Your task to perform on an android device: change the upload size in google photos Image 0: 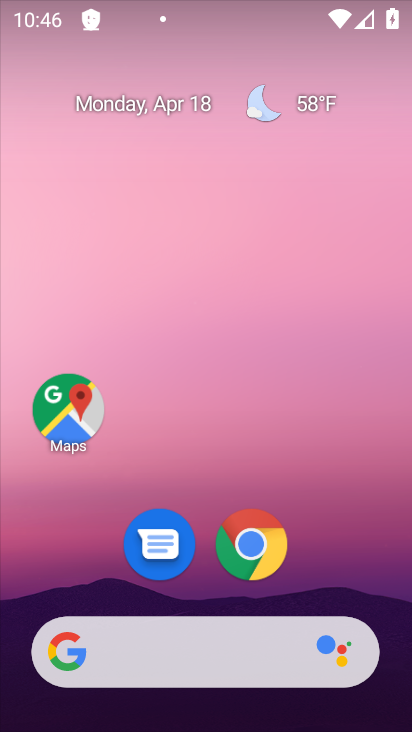
Step 0: drag from (210, 568) to (235, 30)
Your task to perform on an android device: change the upload size in google photos Image 1: 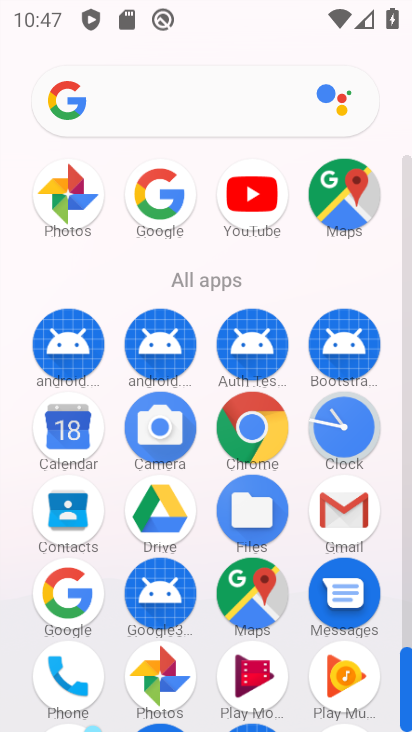
Step 1: click (71, 191)
Your task to perform on an android device: change the upload size in google photos Image 2: 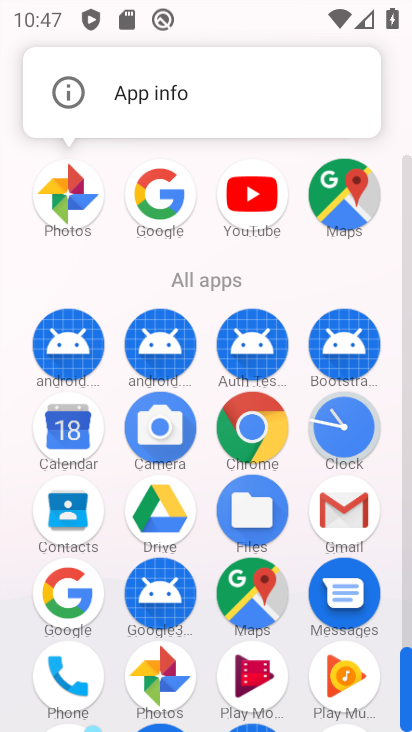
Step 2: click (71, 191)
Your task to perform on an android device: change the upload size in google photos Image 3: 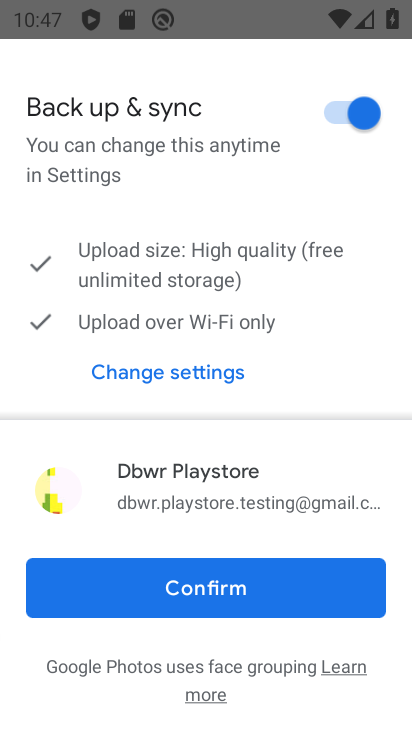
Step 3: click (204, 584)
Your task to perform on an android device: change the upload size in google photos Image 4: 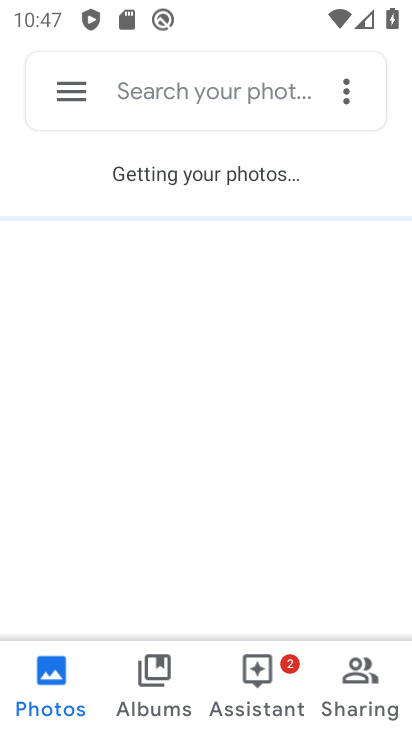
Step 4: click (76, 103)
Your task to perform on an android device: change the upload size in google photos Image 5: 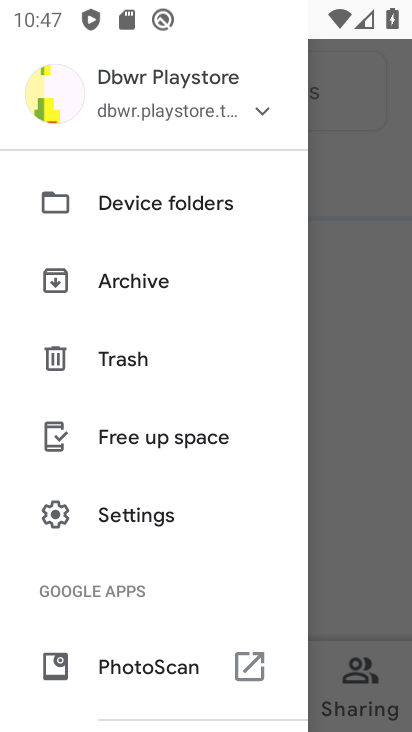
Step 5: click (137, 520)
Your task to perform on an android device: change the upload size in google photos Image 6: 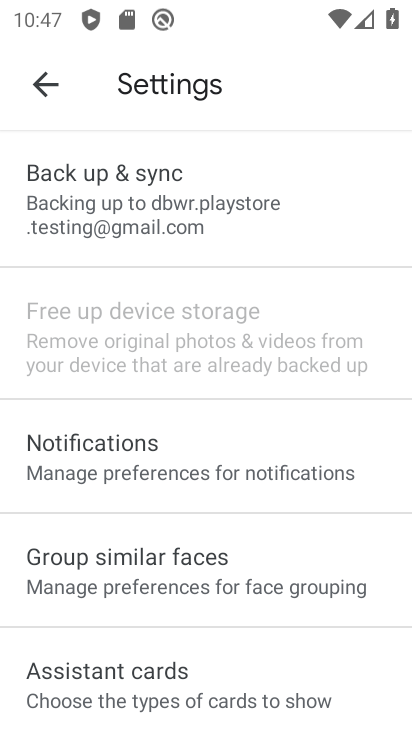
Step 6: click (87, 195)
Your task to perform on an android device: change the upload size in google photos Image 7: 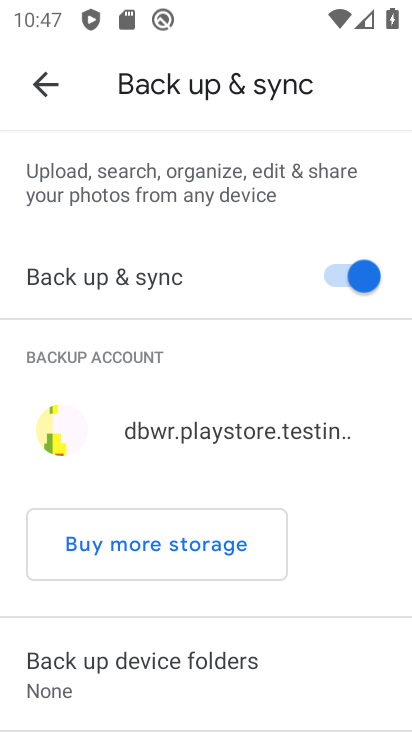
Step 7: drag from (124, 643) to (156, 392)
Your task to perform on an android device: change the upload size in google photos Image 8: 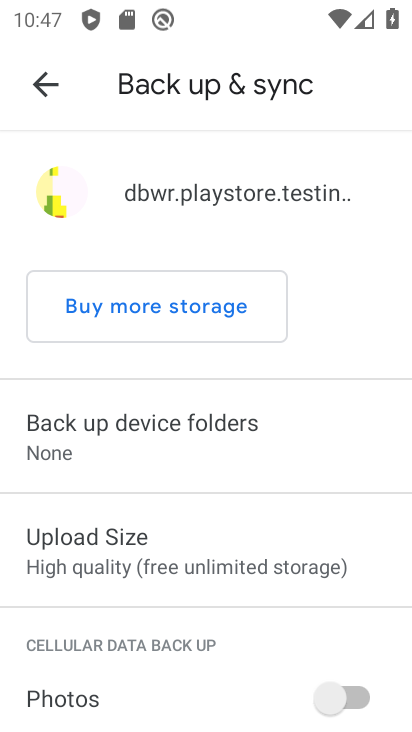
Step 8: click (124, 554)
Your task to perform on an android device: change the upload size in google photos Image 9: 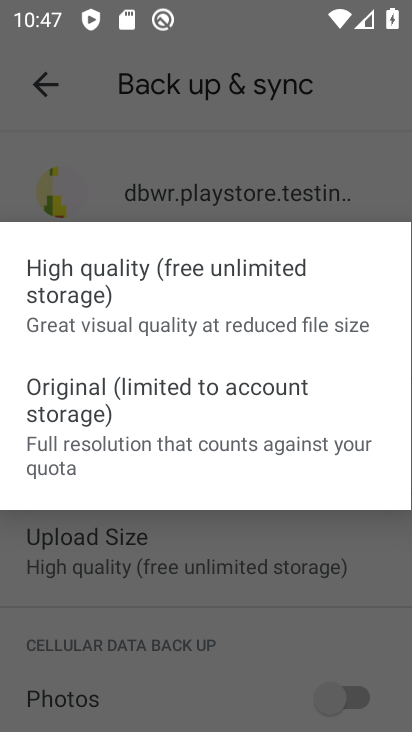
Step 9: click (145, 388)
Your task to perform on an android device: change the upload size in google photos Image 10: 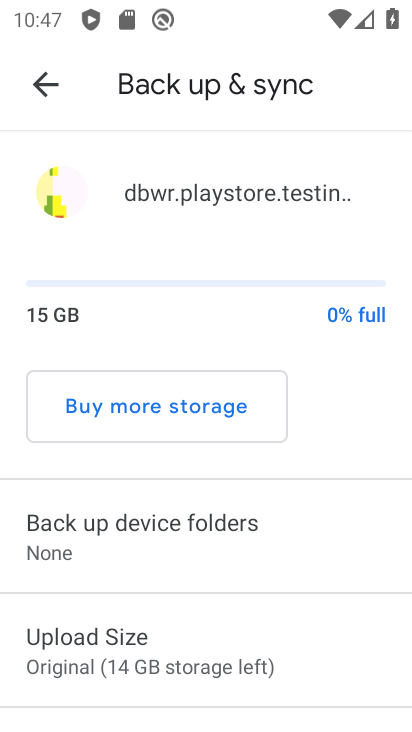
Step 10: task complete